Your task to perform on an android device: install app "Pluto TV - Live TV and Movies" Image 0: 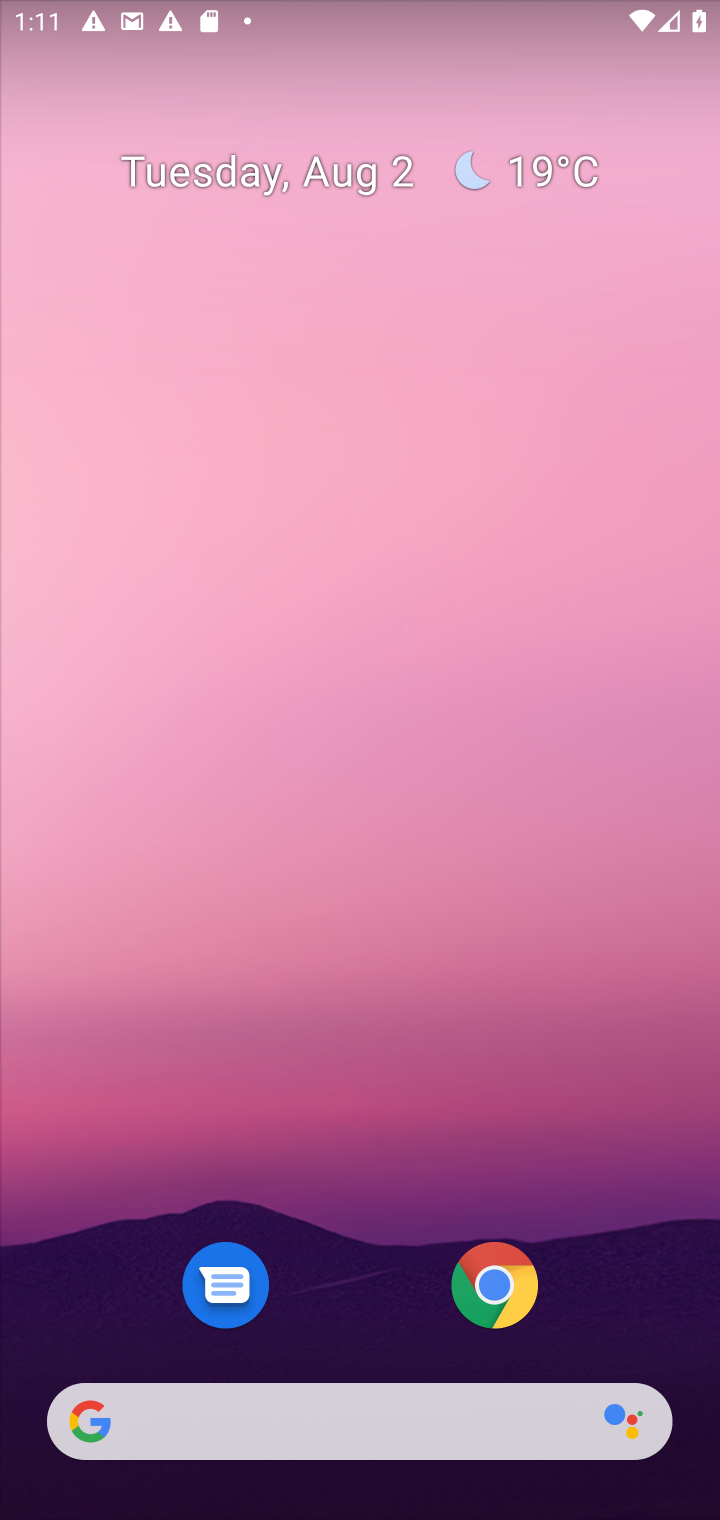
Step 0: press home button
Your task to perform on an android device: install app "Pluto TV - Live TV and Movies" Image 1: 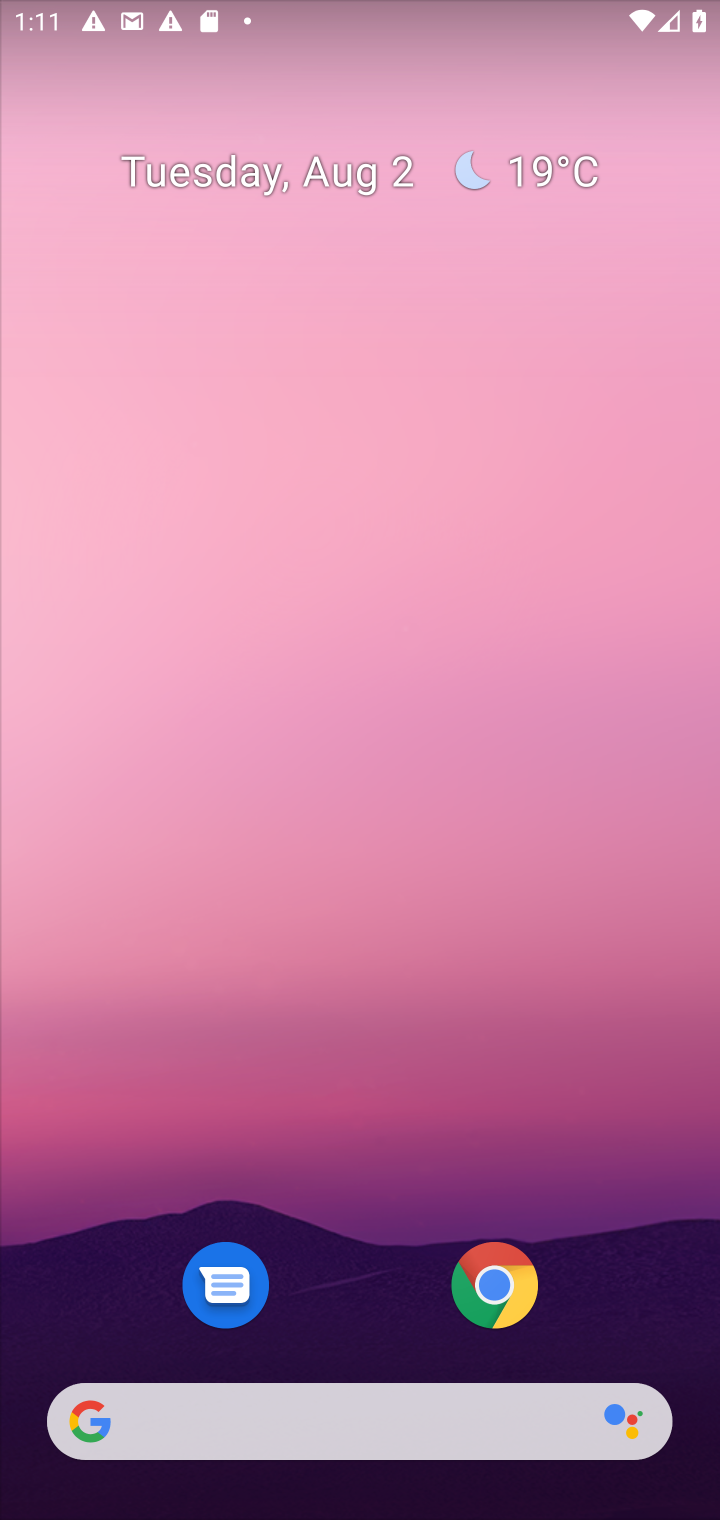
Step 1: drag from (205, 258) to (187, 6)
Your task to perform on an android device: install app "Pluto TV - Live TV and Movies" Image 2: 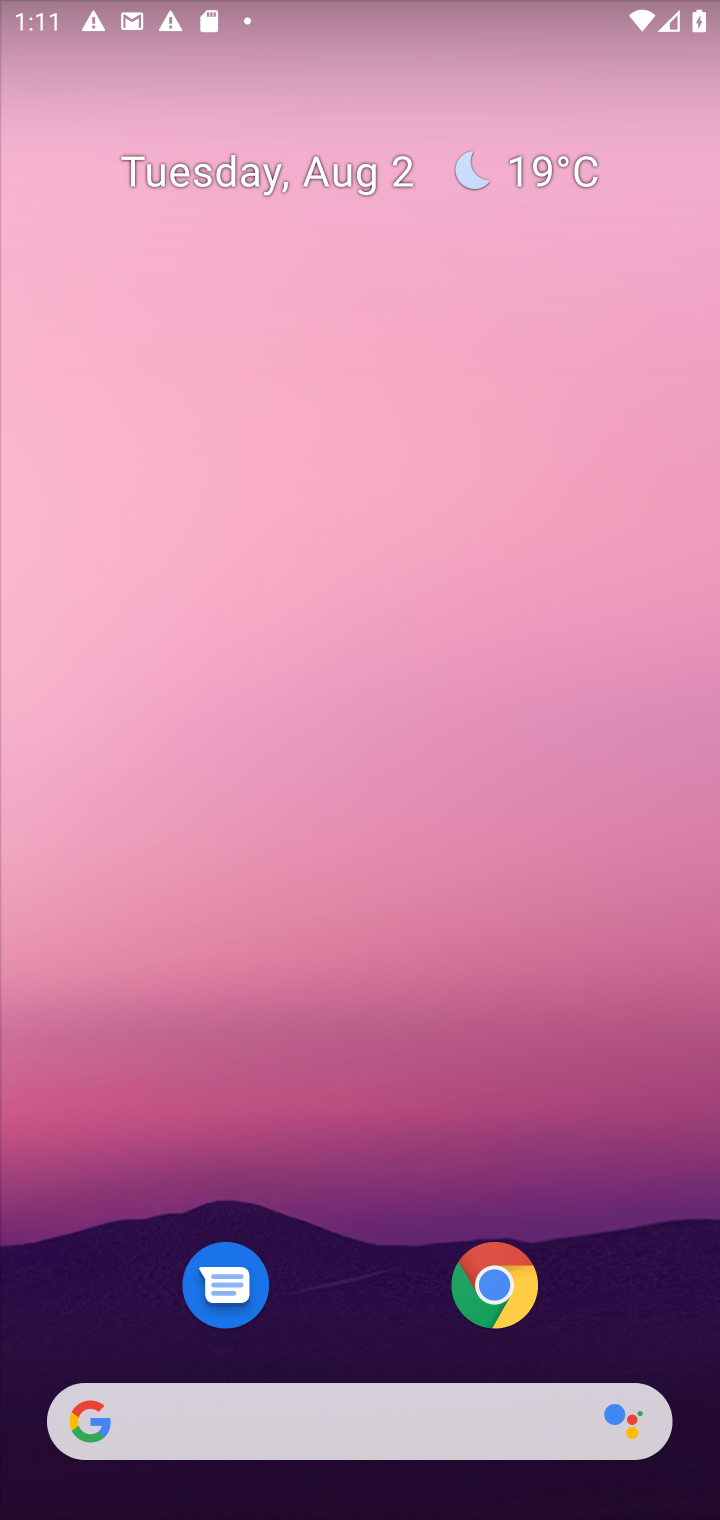
Step 2: drag from (361, 1209) to (192, 297)
Your task to perform on an android device: install app "Pluto TV - Live TV and Movies" Image 3: 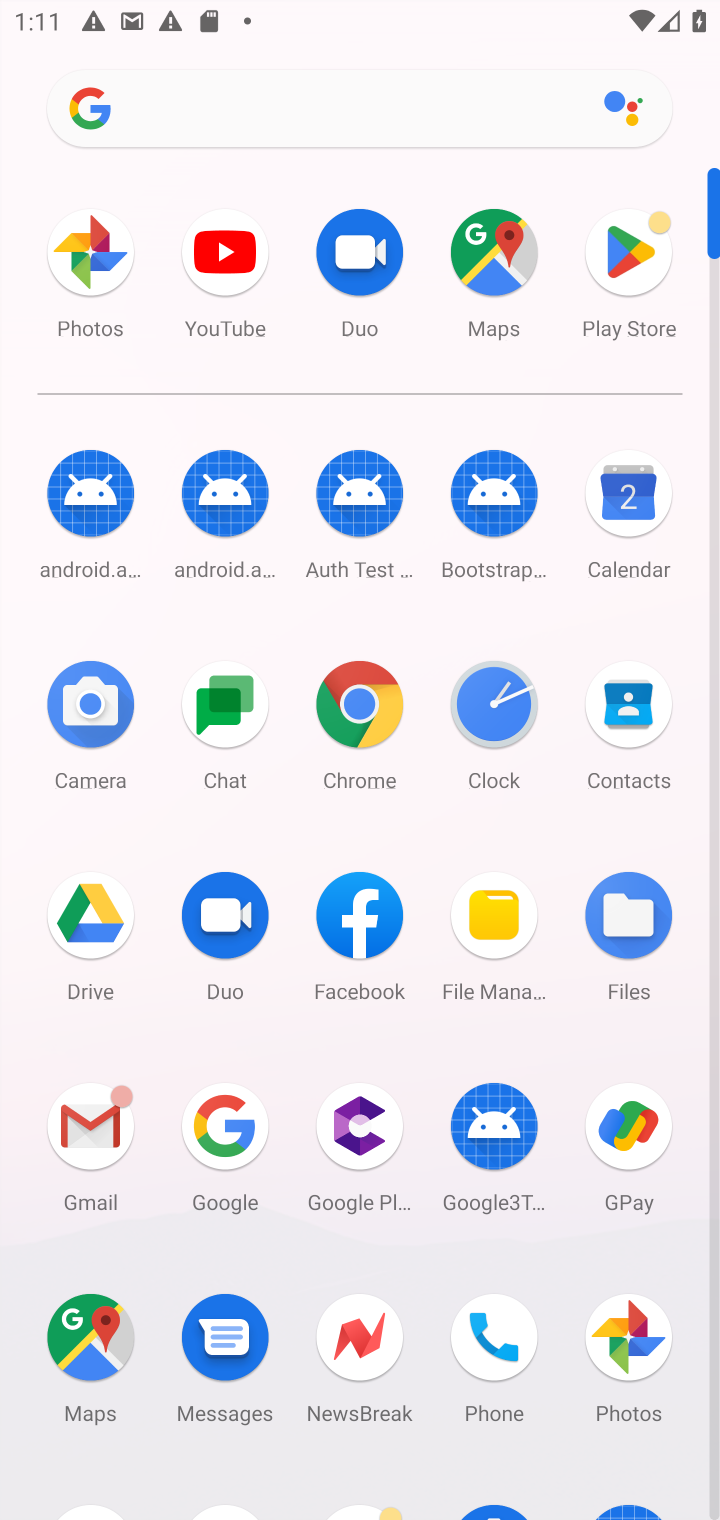
Step 3: click (644, 293)
Your task to perform on an android device: install app "Pluto TV - Live TV and Movies" Image 4: 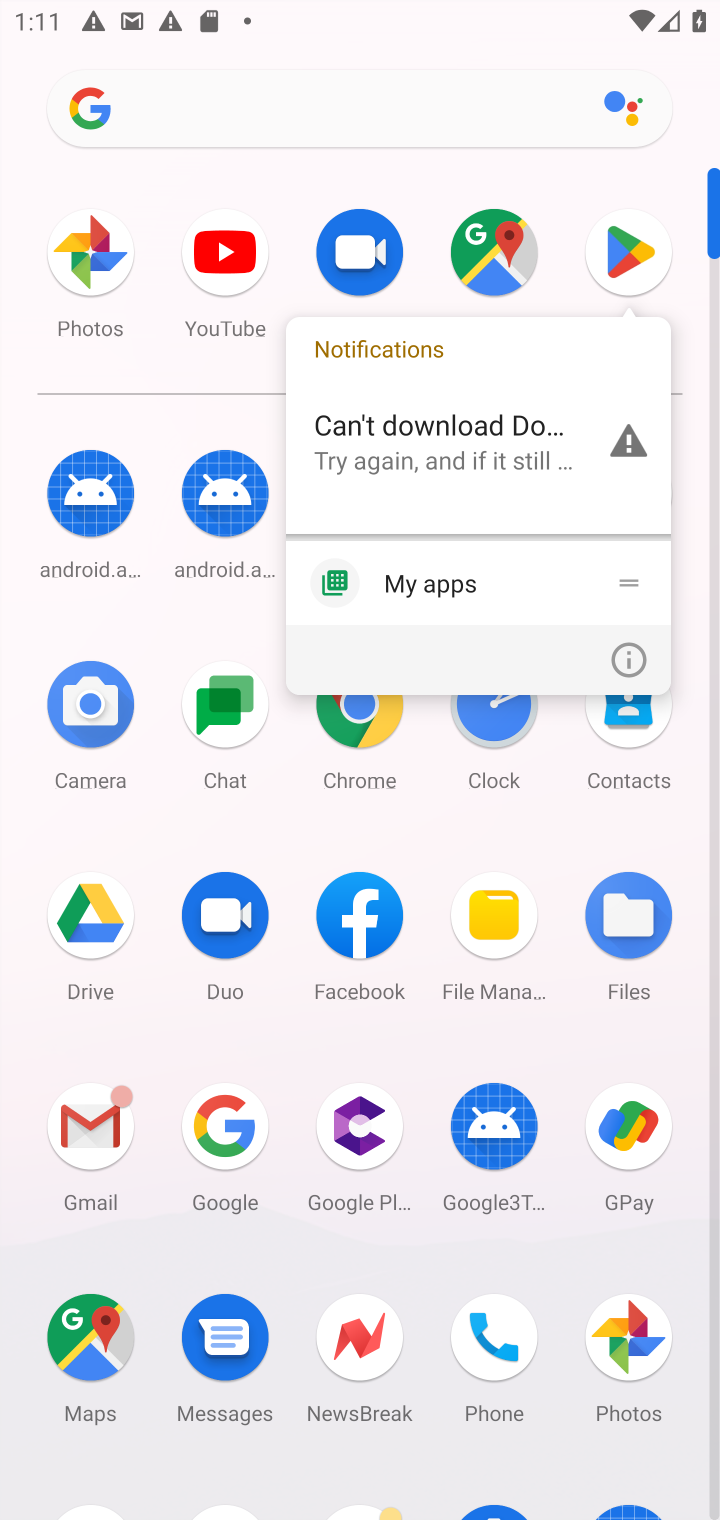
Step 4: click (628, 288)
Your task to perform on an android device: install app "Pluto TV - Live TV and Movies" Image 5: 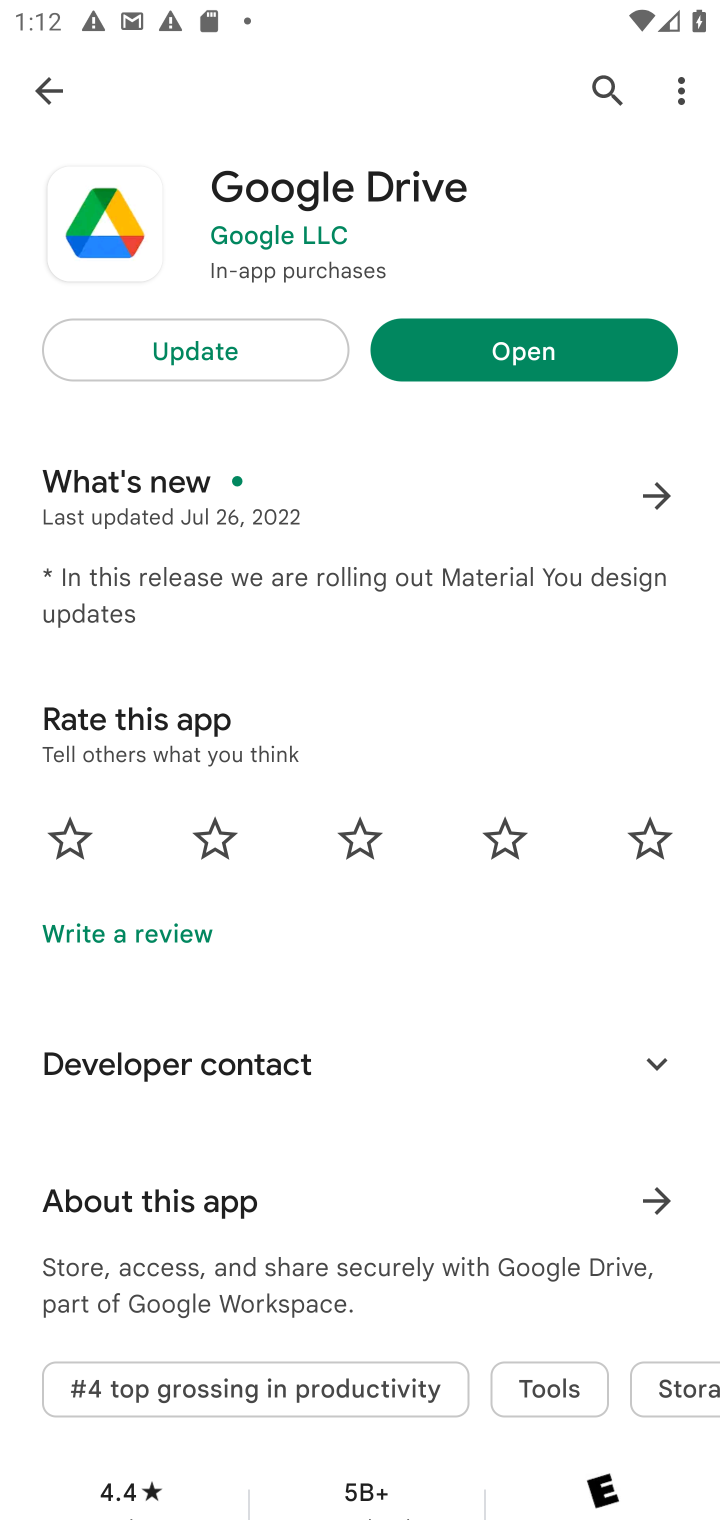
Step 5: task complete